Your task to perform on an android device: set default search engine in the chrome app Image 0: 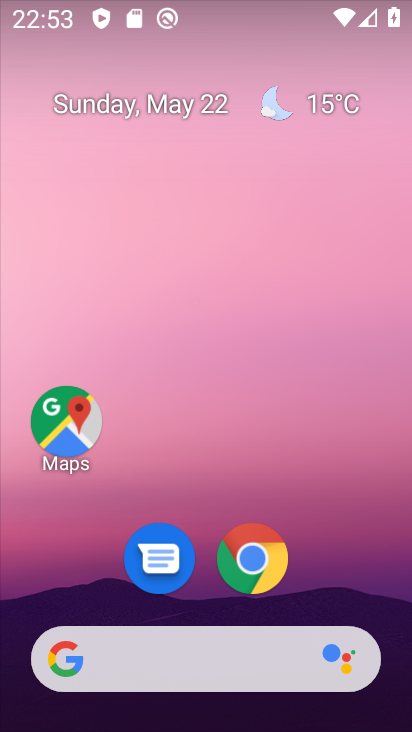
Step 0: click (252, 562)
Your task to perform on an android device: set default search engine in the chrome app Image 1: 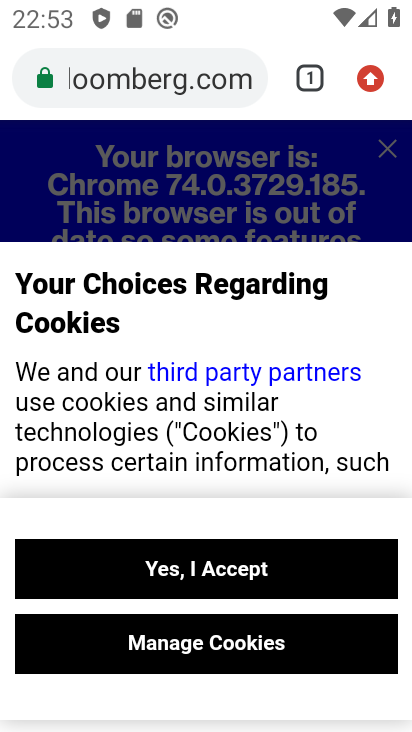
Step 1: click (372, 79)
Your task to perform on an android device: set default search engine in the chrome app Image 2: 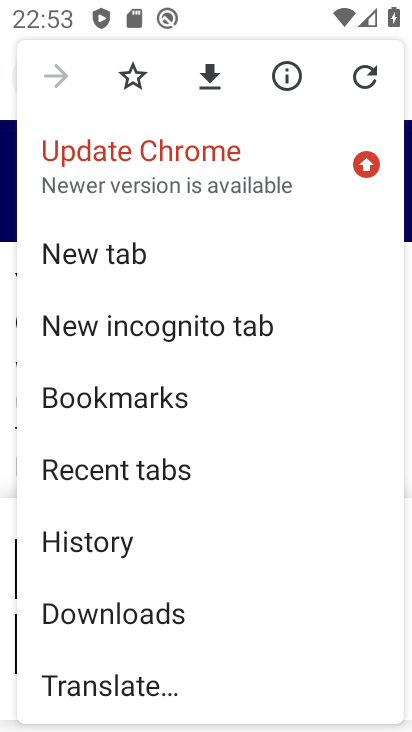
Step 2: drag from (218, 588) to (225, 209)
Your task to perform on an android device: set default search engine in the chrome app Image 3: 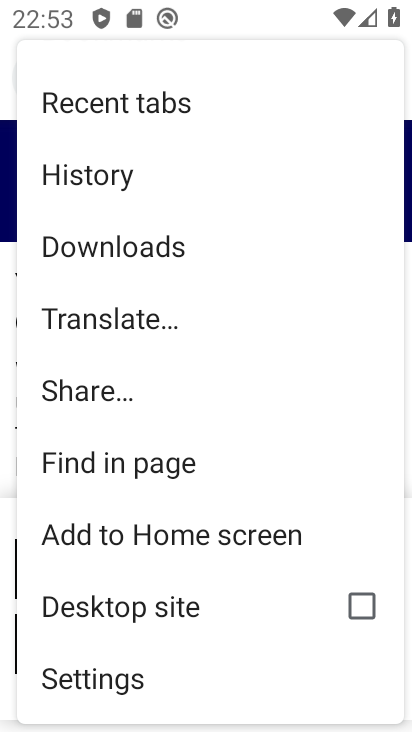
Step 3: click (91, 675)
Your task to perform on an android device: set default search engine in the chrome app Image 4: 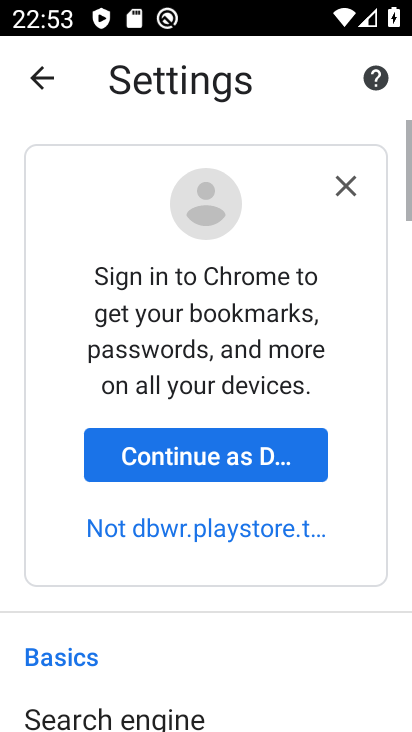
Step 4: drag from (196, 530) to (218, 127)
Your task to perform on an android device: set default search engine in the chrome app Image 5: 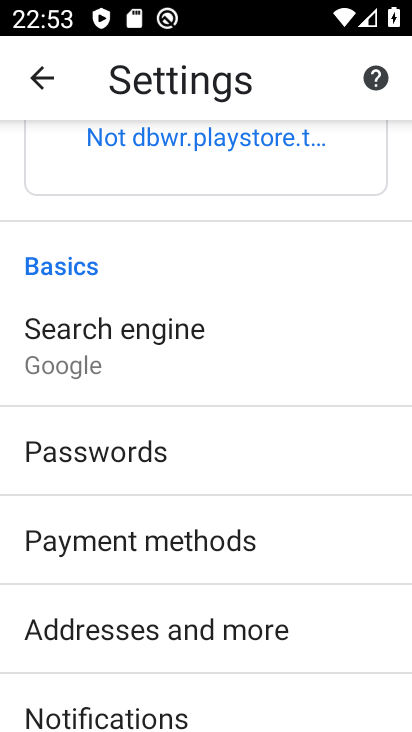
Step 5: click (109, 333)
Your task to perform on an android device: set default search engine in the chrome app Image 6: 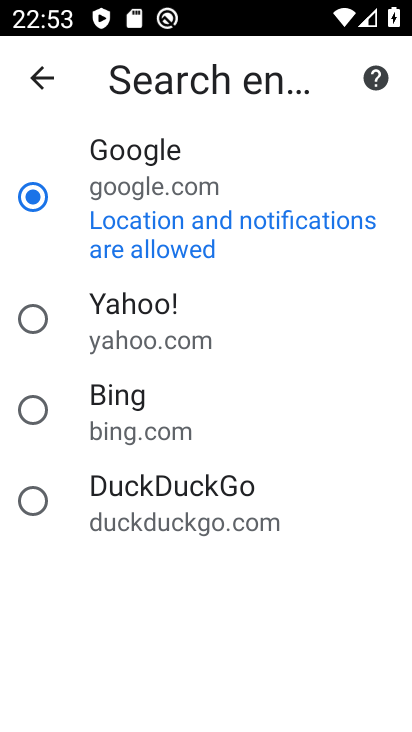
Step 6: click (35, 328)
Your task to perform on an android device: set default search engine in the chrome app Image 7: 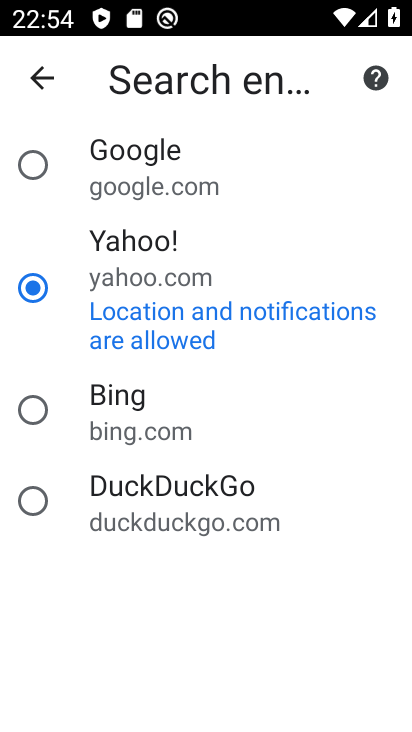
Step 7: task complete